Your task to perform on an android device: snooze an email in the gmail app Image 0: 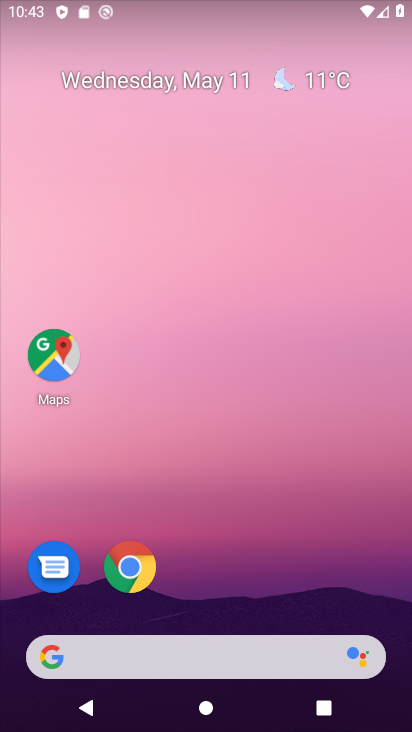
Step 0: drag from (329, 470) to (264, 9)
Your task to perform on an android device: snooze an email in the gmail app Image 1: 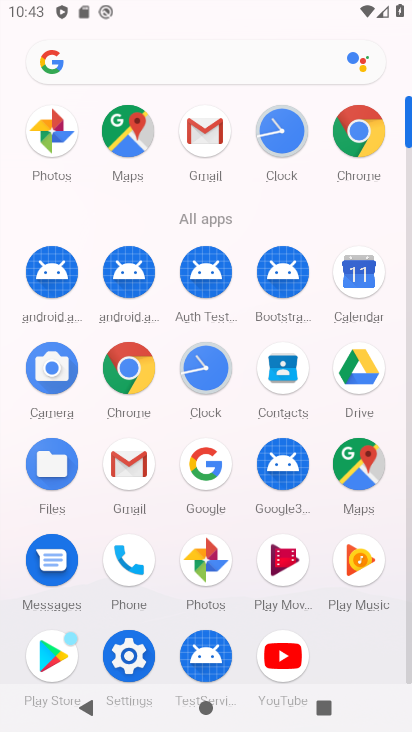
Step 1: click (194, 141)
Your task to perform on an android device: snooze an email in the gmail app Image 2: 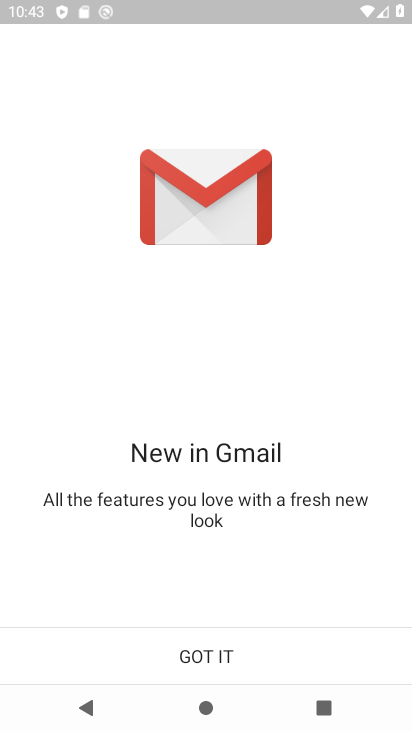
Step 2: click (181, 661)
Your task to perform on an android device: snooze an email in the gmail app Image 3: 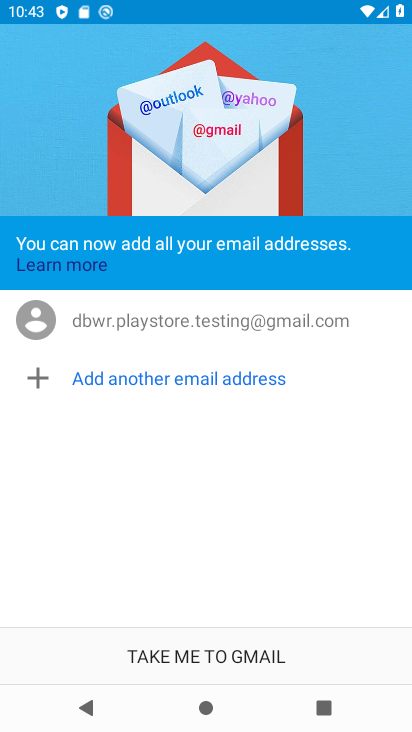
Step 3: click (180, 662)
Your task to perform on an android device: snooze an email in the gmail app Image 4: 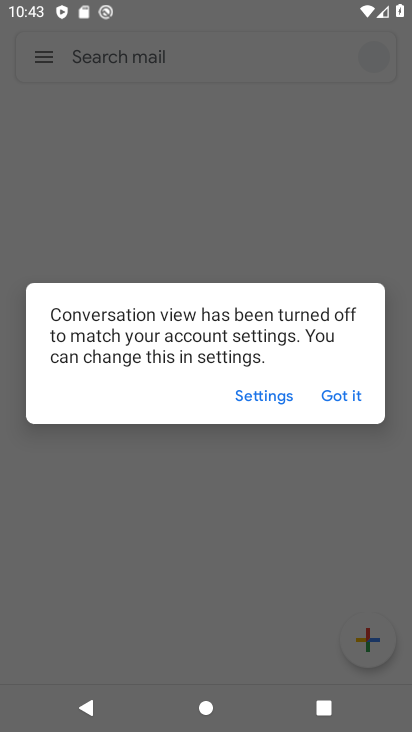
Step 4: click (339, 396)
Your task to perform on an android device: snooze an email in the gmail app Image 5: 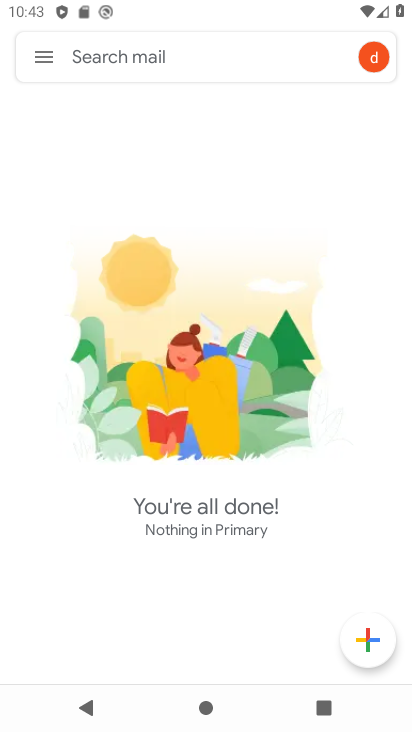
Step 5: click (44, 54)
Your task to perform on an android device: snooze an email in the gmail app Image 6: 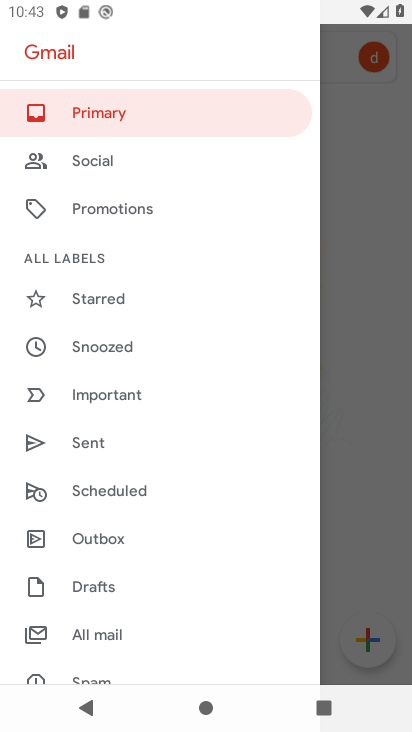
Step 6: drag from (65, 620) to (77, 244)
Your task to perform on an android device: snooze an email in the gmail app Image 7: 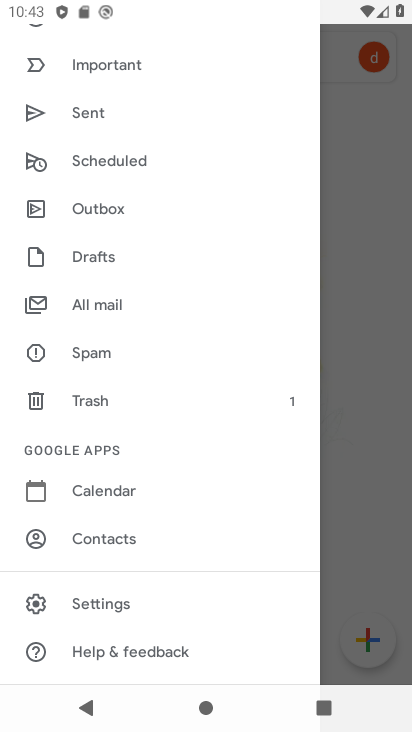
Step 7: click (91, 313)
Your task to perform on an android device: snooze an email in the gmail app Image 8: 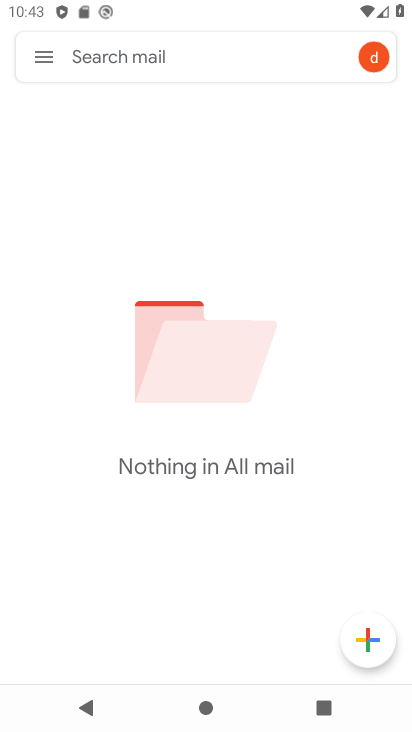
Step 8: task complete